Your task to perform on an android device: What's the news in Brazil? Image 0: 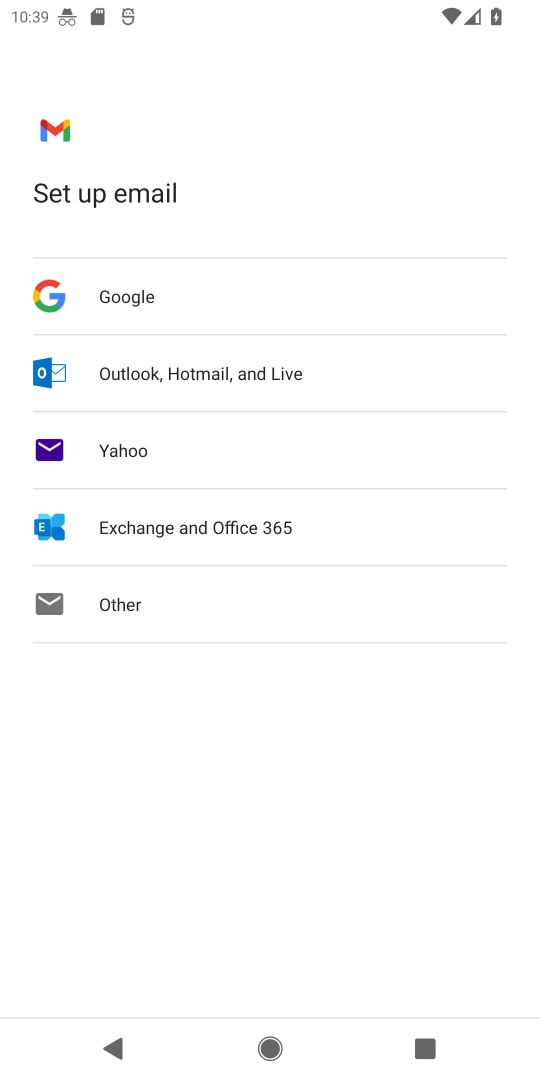
Step 0: press home button
Your task to perform on an android device: What's the news in Brazil? Image 1: 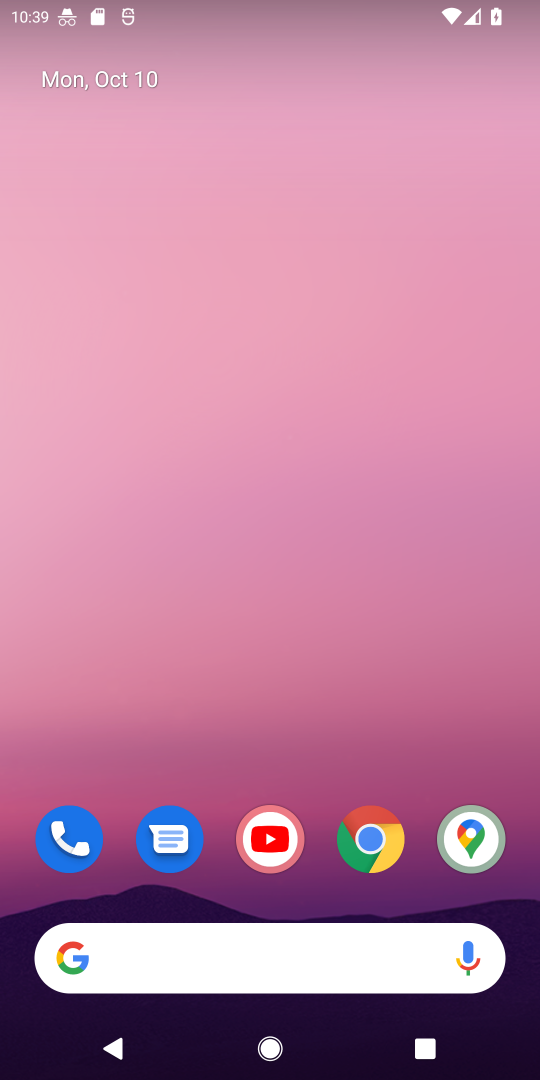
Step 1: drag from (344, 635) to (350, 118)
Your task to perform on an android device: What's the news in Brazil? Image 2: 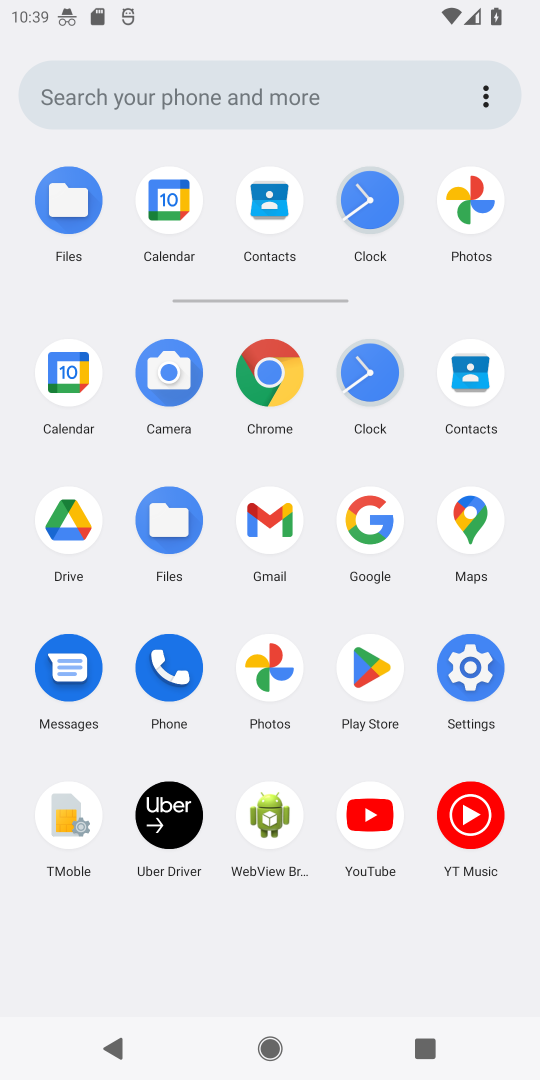
Step 2: click (258, 372)
Your task to perform on an android device: What's the news in Brazil? Image 3: 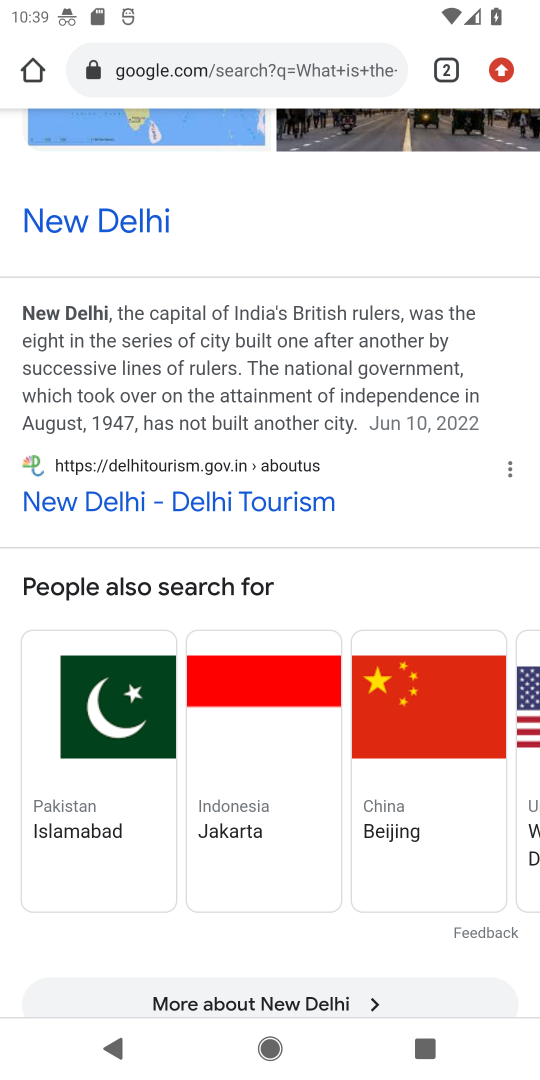
Step 3: click (231, 62)
Your task to perform on an android device: What's the news in Brazil? Image 4: 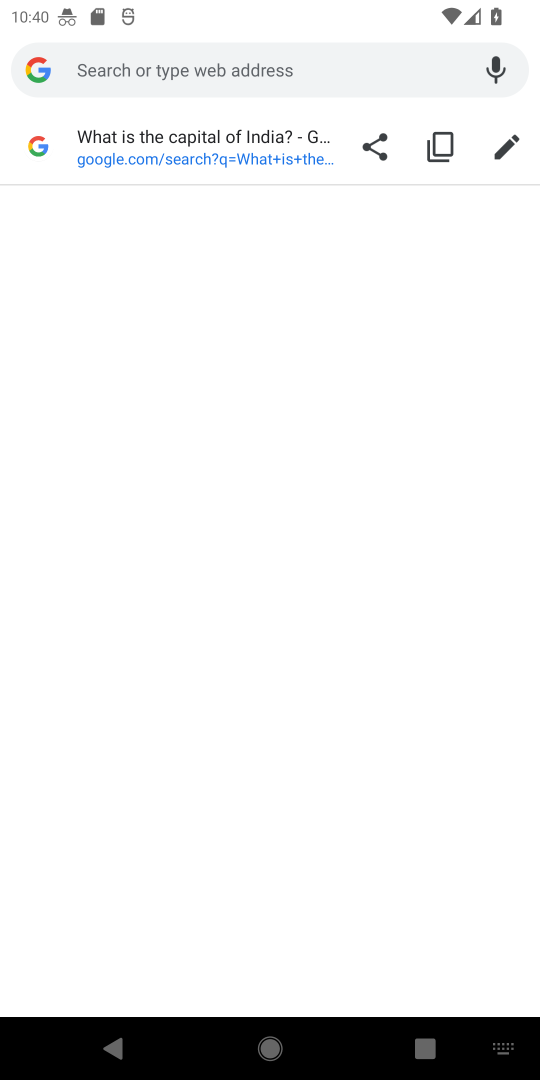
Step 4: type "What's the news in Brazil?"
Your task to perform on an android device: What's the news in Brazil? Image 5: 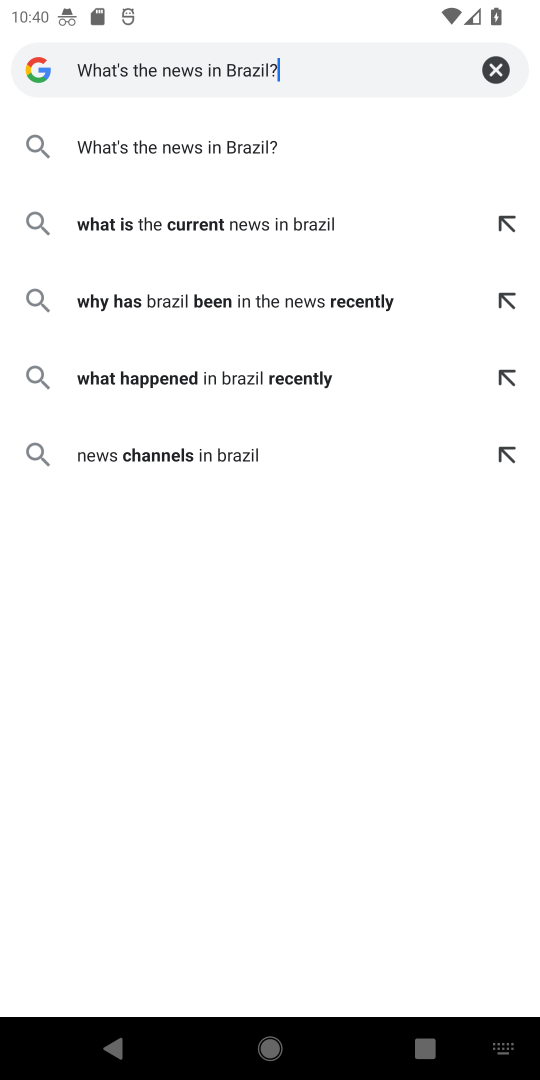
Step 5: press enter
Your task to perform on an android device: What's the news in Brazil? Image 6: 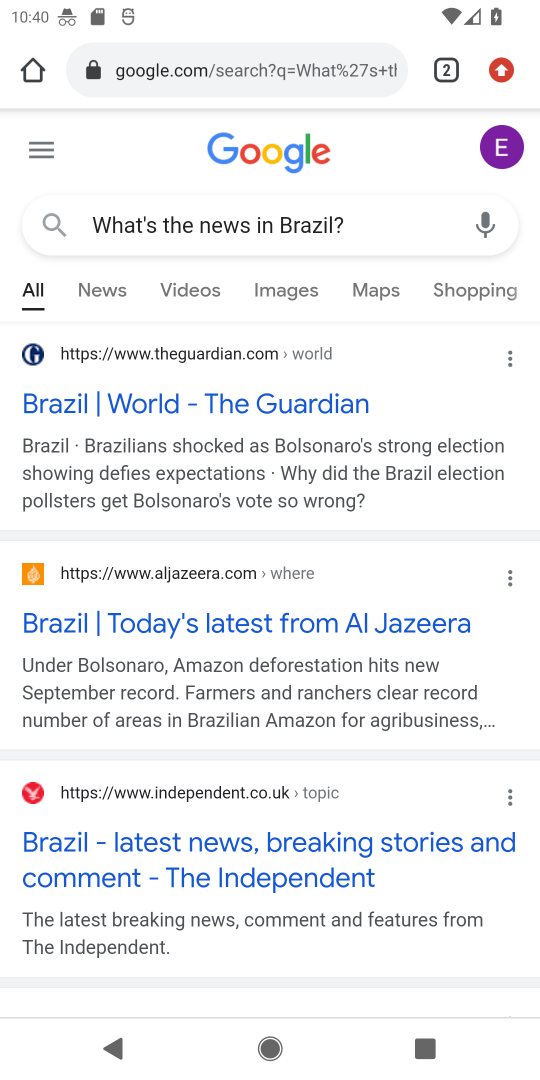
Step 6: click (293, 404)
Your task to perform on an android device: What's the news in Brazil? Image 7: 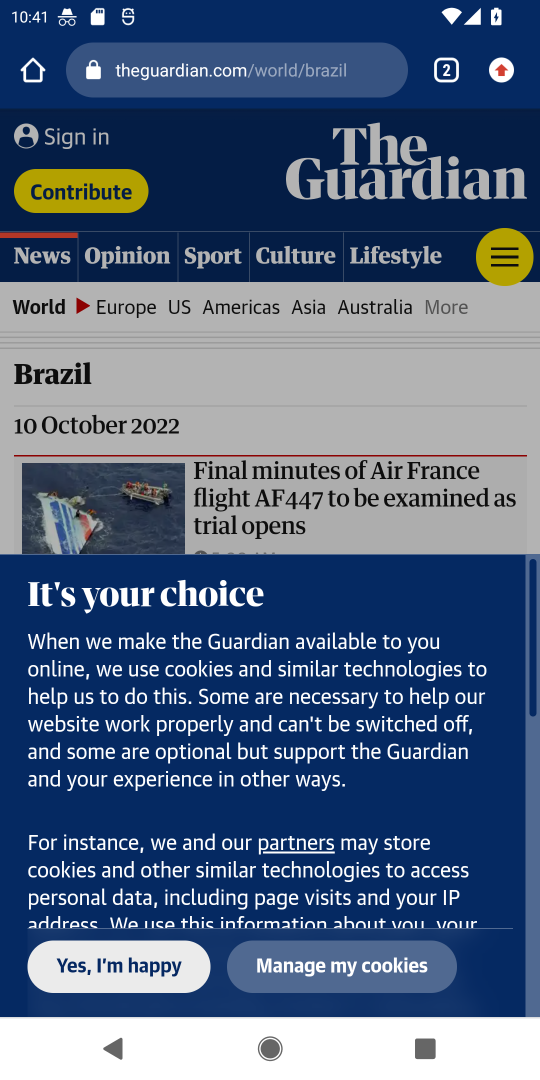
Step 7: task complete